Your task to perform on an android device: Is it going to rain today? Image 0: 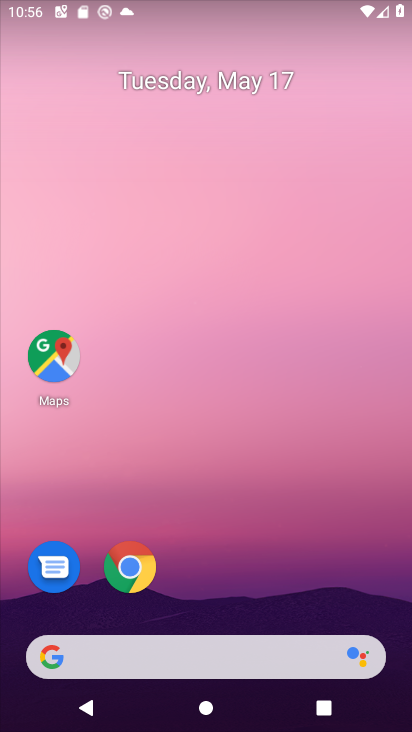
Step 0: click (175, 652)
Your task to perform on an android device: Is it going to rain today? Image 1: 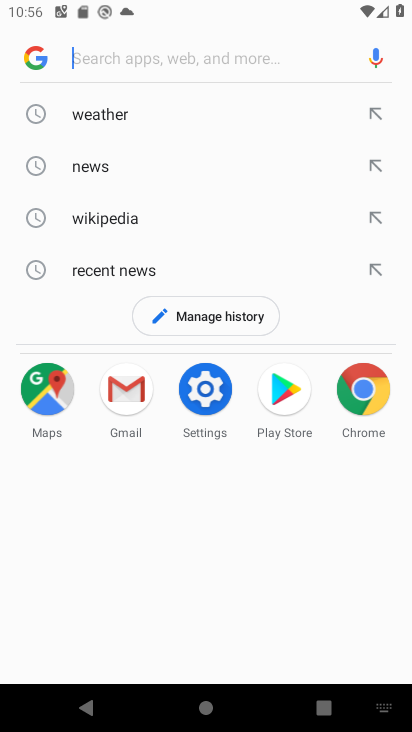
Step 1: click (96, 111)
Your task to perform on an android device: Is it going to rain today? Image 2: 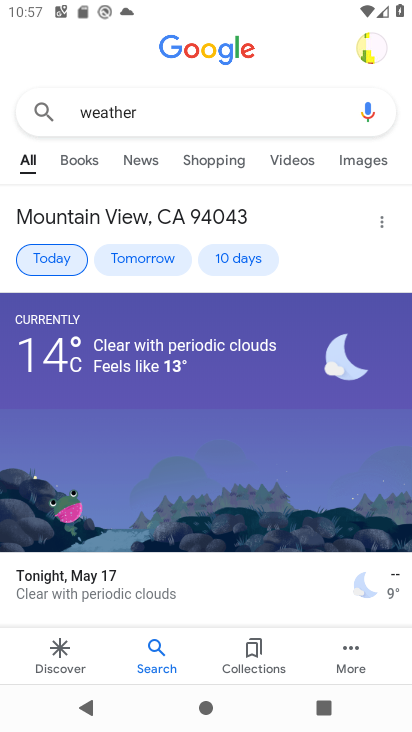
Step 2: task complete